Your task to perform on an android device: Open ESPN.com Image 0: 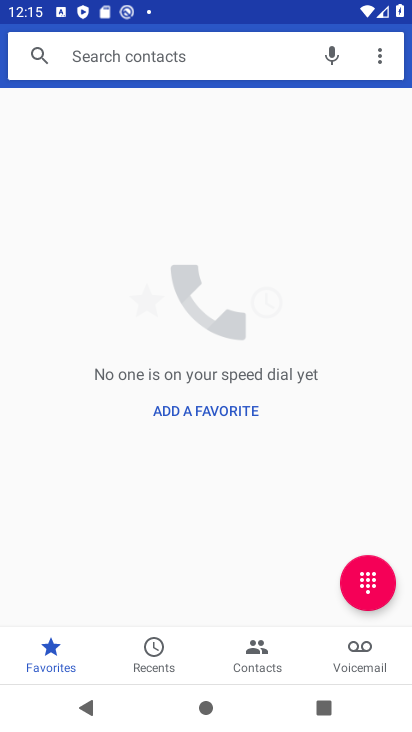
Step 0: press home button
Your task to perform on an android device: Open ESPN.com Image 1: 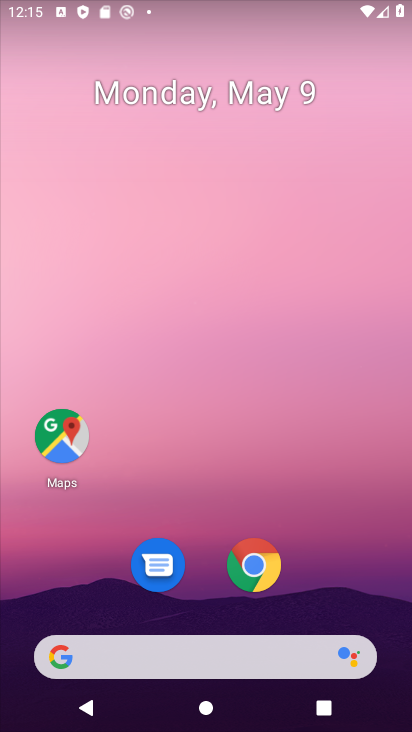
Step 1: drag from (222, 599) to (212, 250)
Your task to perform on an android device: Open ESPN.com Image 2: 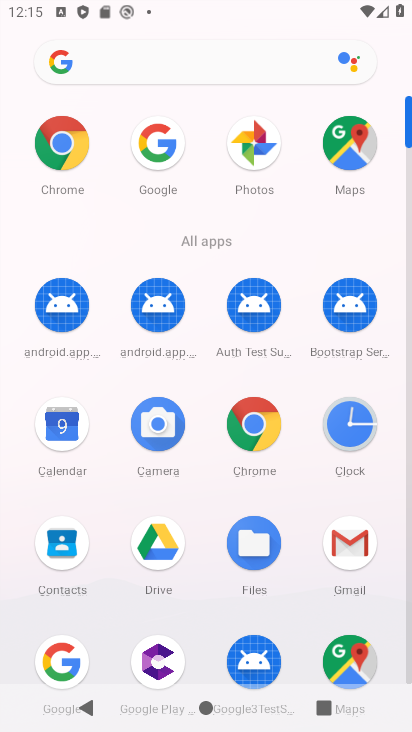
Step 2: click (69, 163)
Your task to perform on an android device: Open ESPN.com Image 3: 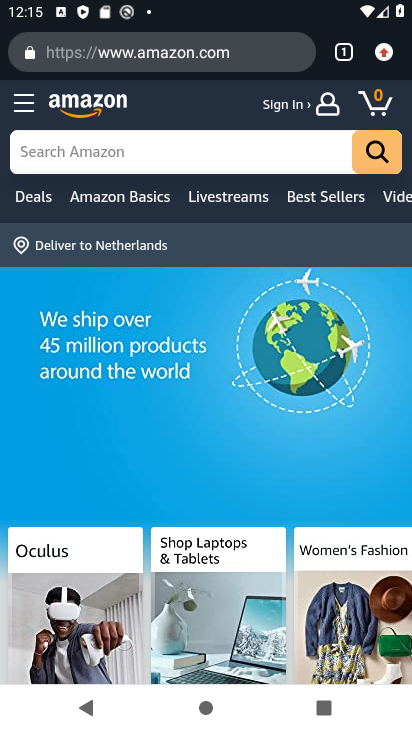
Step 3: click (205, 51)
Your task to perform on an android device: Open ESPN.com Image 4: 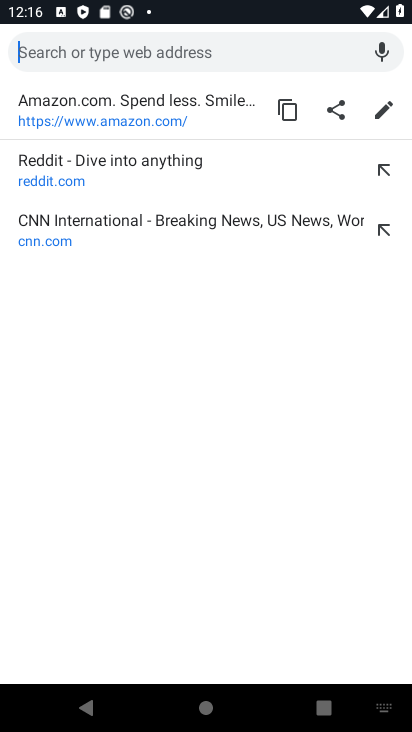
Step 4: type "espn.com"
Your task to perform on an android device: Open ESPN.com Image 5: 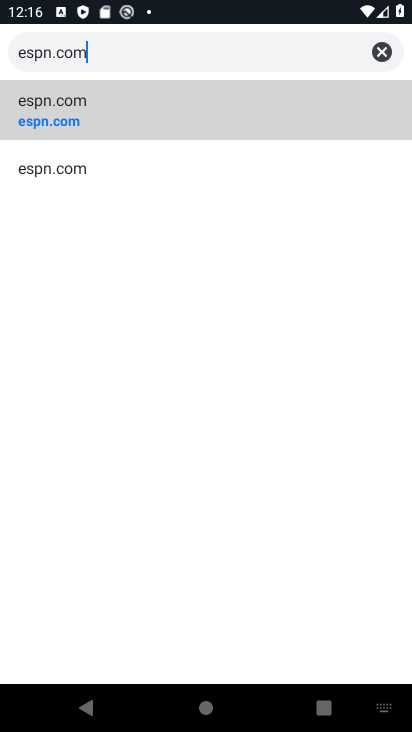
Step 5: click (163, 112)
Your task to perform on an android device: Open ESPN.com Image 6: 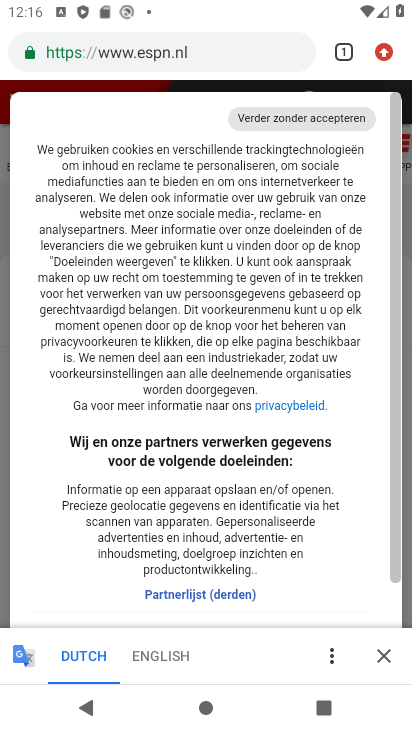
Step 6: click (130, 128)
Your task to perform on an android device: Open ESPN.com Image 7: 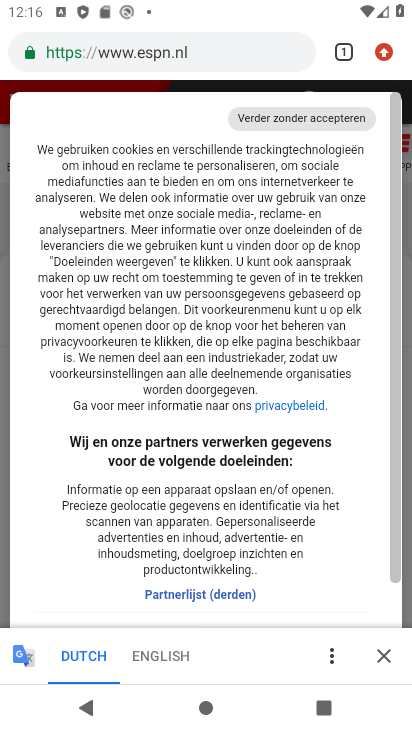
Step 7: click (252, 144)
Your task to perform on an android device: Open ESPN.com Image 8: 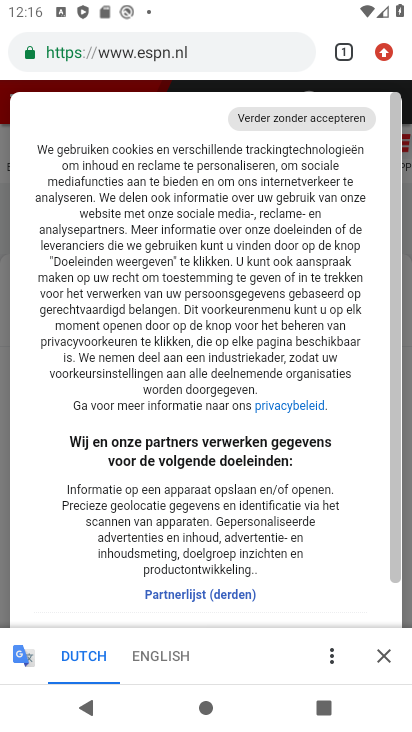
Step 8: task complete